Your task to perform on an android device: change notification settings in the gmail app Image 0: 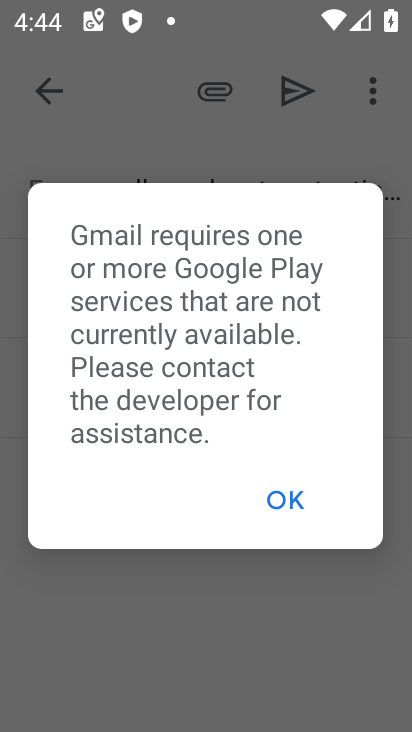
Step 0: press back button
Your task to perform on an android device: change notification settings in the gmail app Image 1: 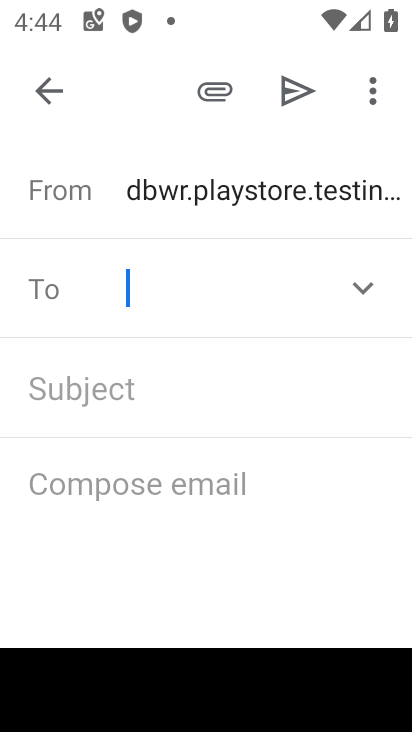
Step 1: press back button
Your task to perform on an android device: change notification settings in the gmail app Image 2: 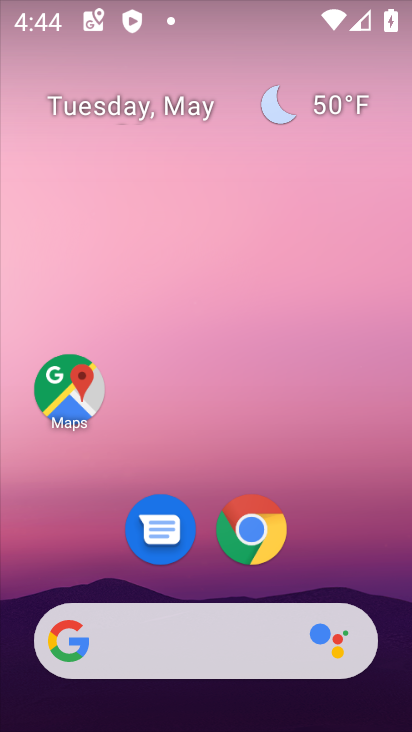
Step 2: drag from (327, 550) to (211, 1)
Your task to perform on an android device: change notification settings in the gmail app Image 3: 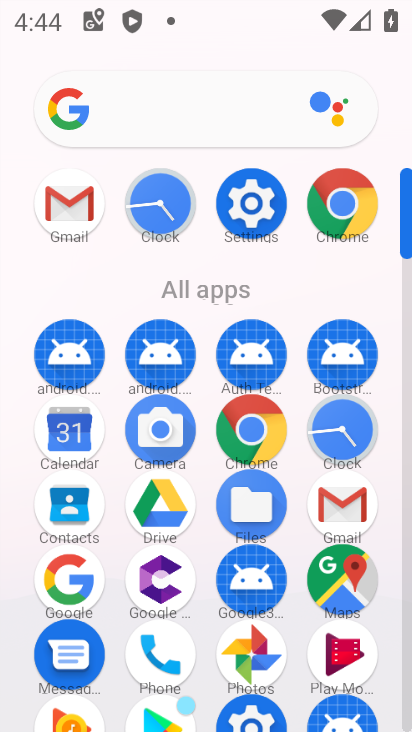
Step 3: drag from (2, 577) to (3, 196)
Your task to perform on an android device: change notification settings in the gmail app Image 4: 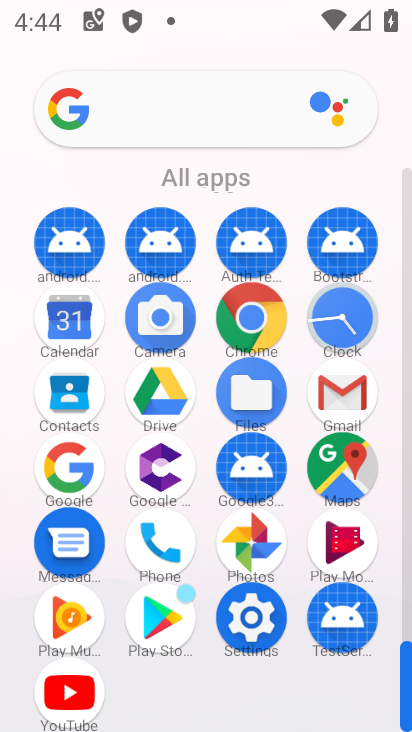
Step 4: click (331, 391)
Your task to perform on an android device: change notification settings in the gmail app Image 5: 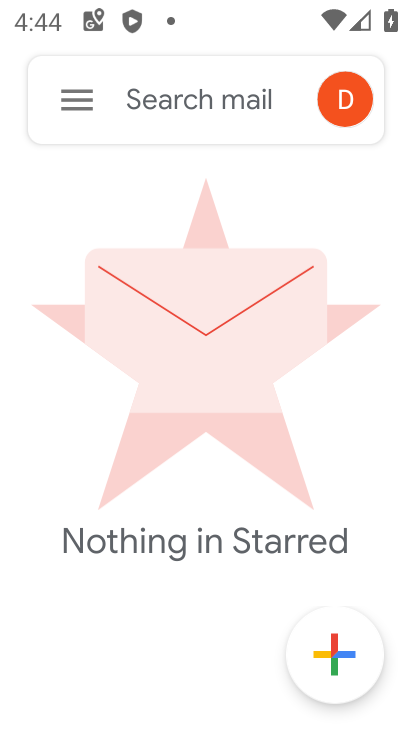
Step 5: click (78, 97)
Your task to perform on an android device: change notification settings in the gmail app Image 6: 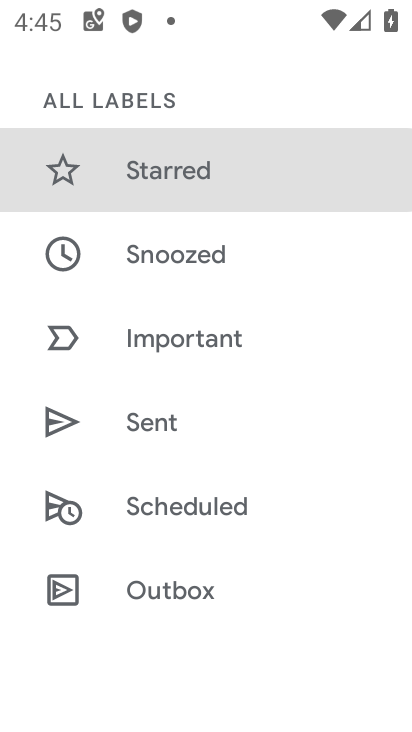
Step 6: drag from (215, 550) to (248, 193)
Your task to perform on an android device: change notification settings in the gmail app Image 7: 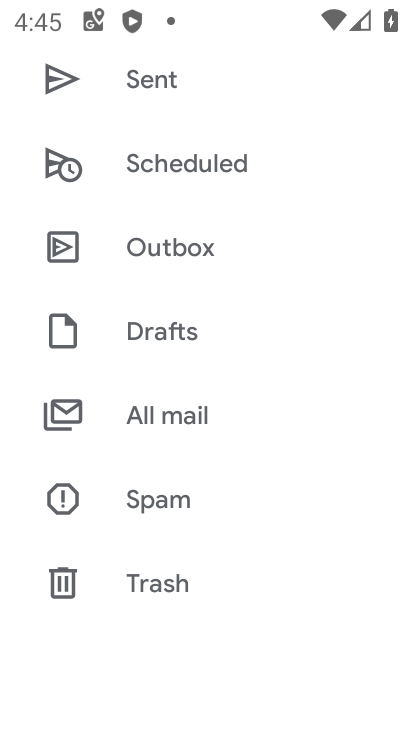
Step 7: drag from (202, 565) to (241, 137)
Your task to perform on an android device: change notification settings in the gmail app Image 8: 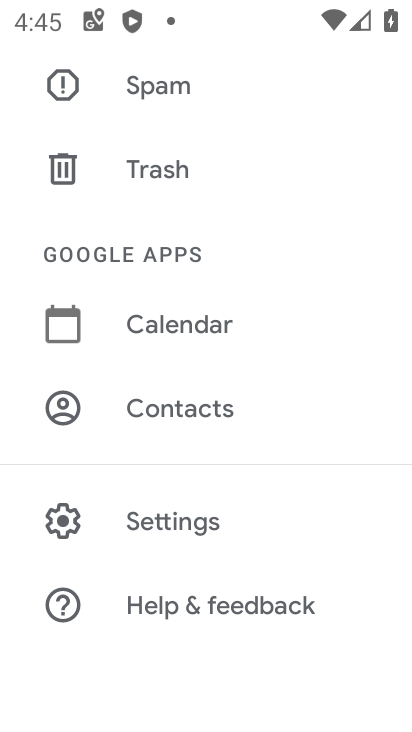
Step 8: click (196, 516)
Your task to perform on an android device: change notification settings in the gmail app Image 9: 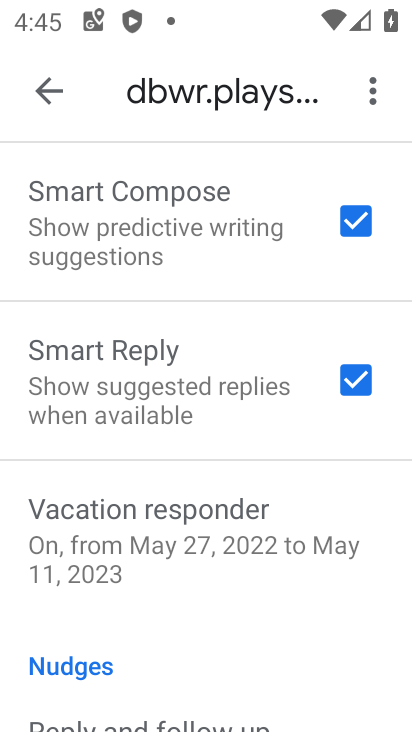
Step 9: drag from (271, 592) to (251, 229)
Your task to perform on an android device: change notification settings in the gmail app Image 10: 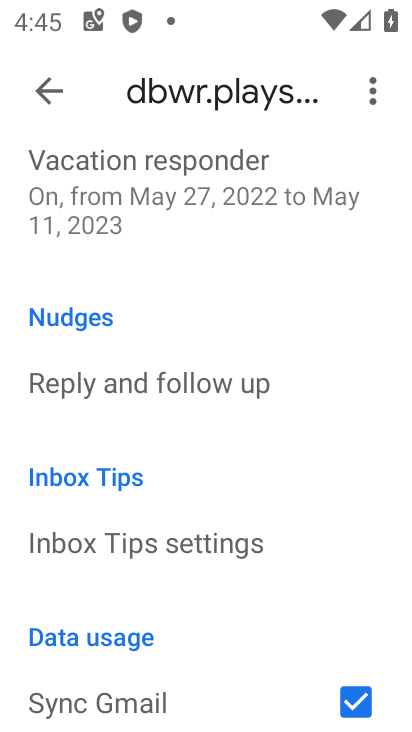
Step 10: drag from (241, 628) to (234, 216)
Your task to perform on an android device: change notification settings in the gmail app Image 11: 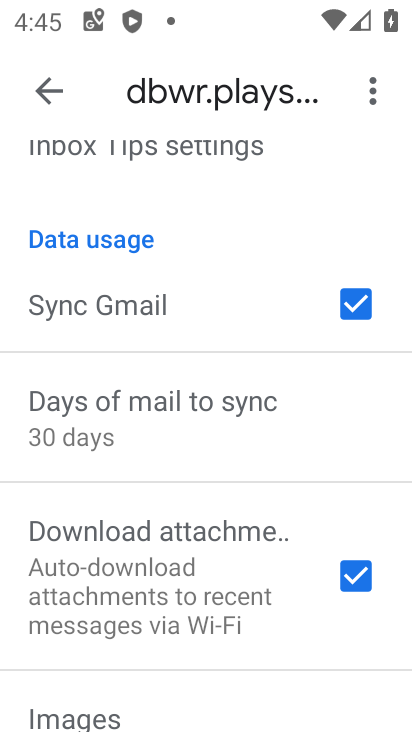
Step 11: drag from (203, 627) to (208, 200)
Your task to perform on an android device: change notification settings in the gmail app Image 12: 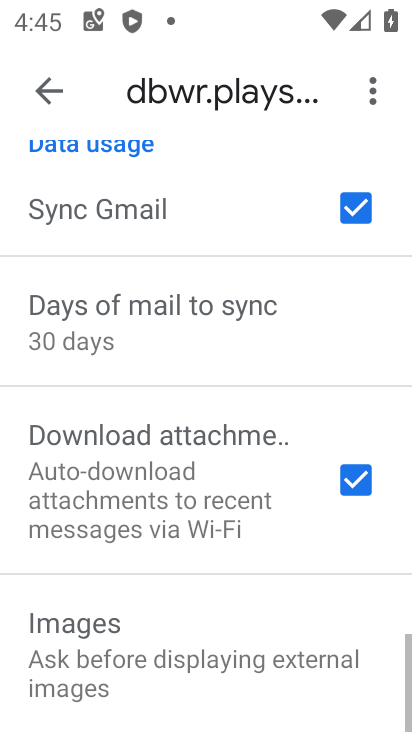
Step 12: drag from (221, 628) to (221, 250)
Your task to perform on an android device: change notification settings in the gmail app Image 13: 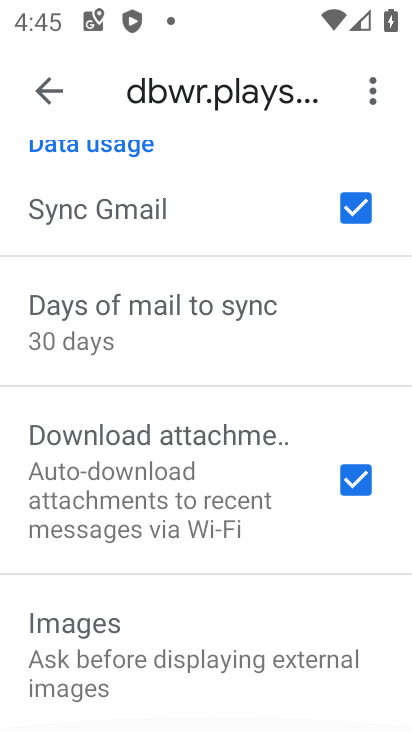
Step 13: drag from (221, 219) to (220, 693)
Your task to perform on an android device: change notification settings in the gmail app Image 14: 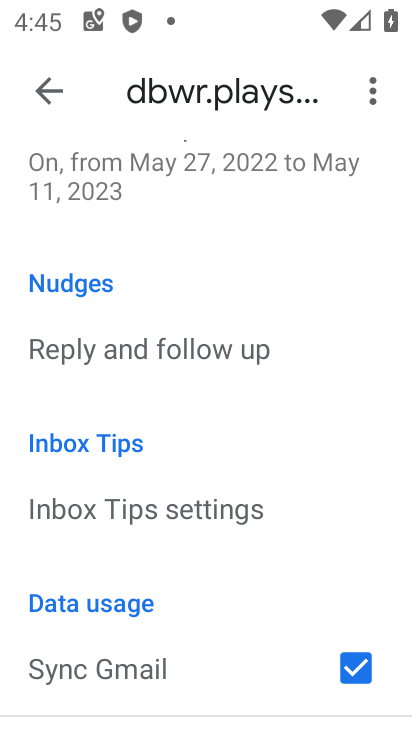
Step 14: drag from (258, 339) to (269, 635)
Your task to perform on an android device: change notification settings in the gmail app Image 15: 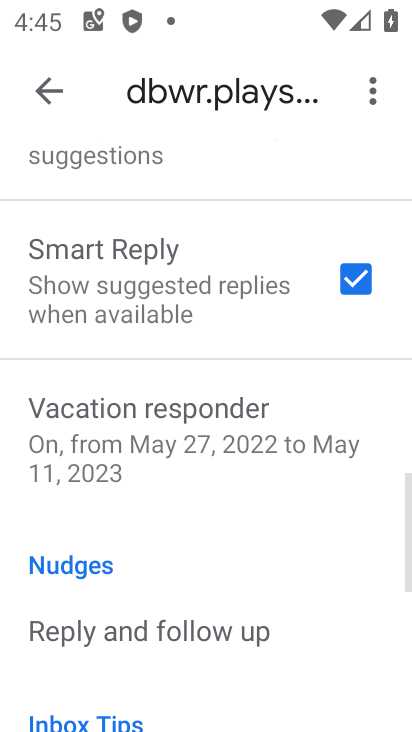
Step 15: drag from (233, 231) to (227, 679)
Your task to perform on an android device: change notification settings in the gmail app Image 16: 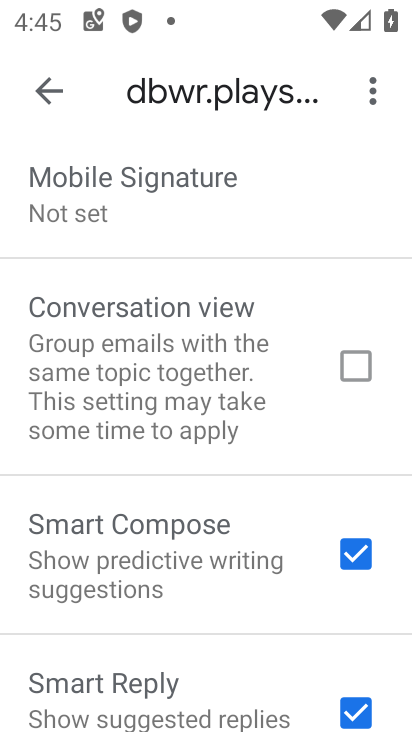
Step 16: drag from (217, 343) to (208, 556)
Your task to perform on an android device: change notification settings in the gmail app Image 17: 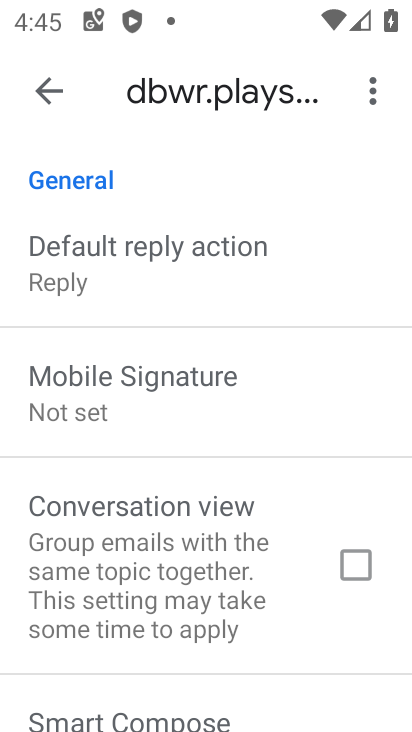
Step 17: drag from (207, 232) to (207, 584)
Your task to perform on an android device: change notification settings in the gmail app Image 18: 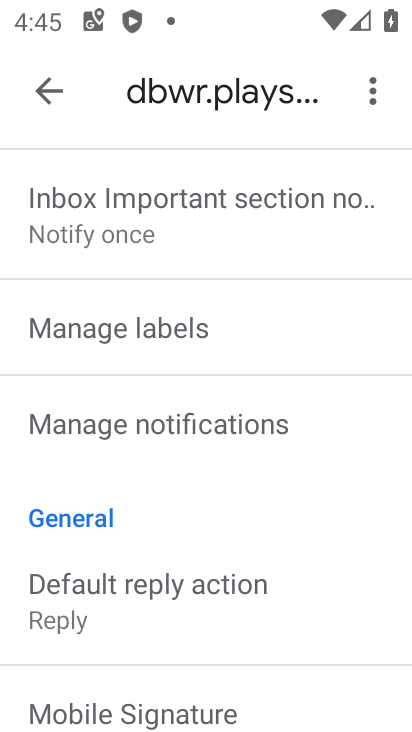
Step 18: click (190, 426)
Your task to perform on an android device: change notification settings in the gmail app Image 19: 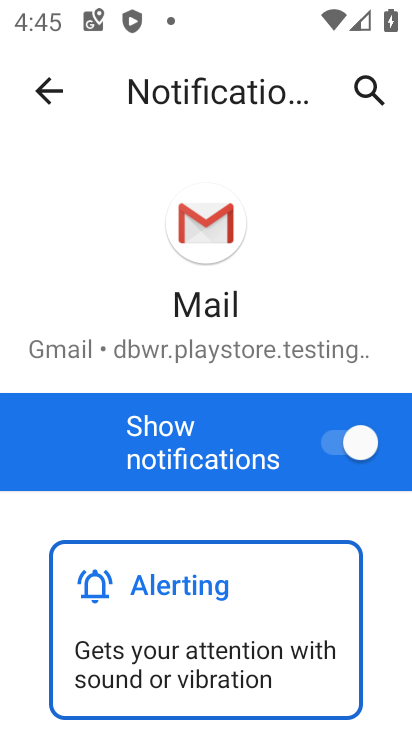
Step 19: click (324, 444)
Your task to perform on an android device: change notification settings in the gmail app Image 20: 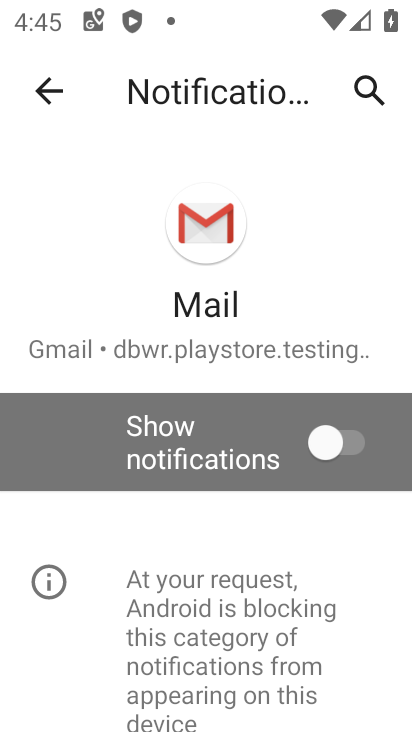
Step 20: task complete